Your task to perform on an android device: toggle notifications settings in the gmail app Image 0: 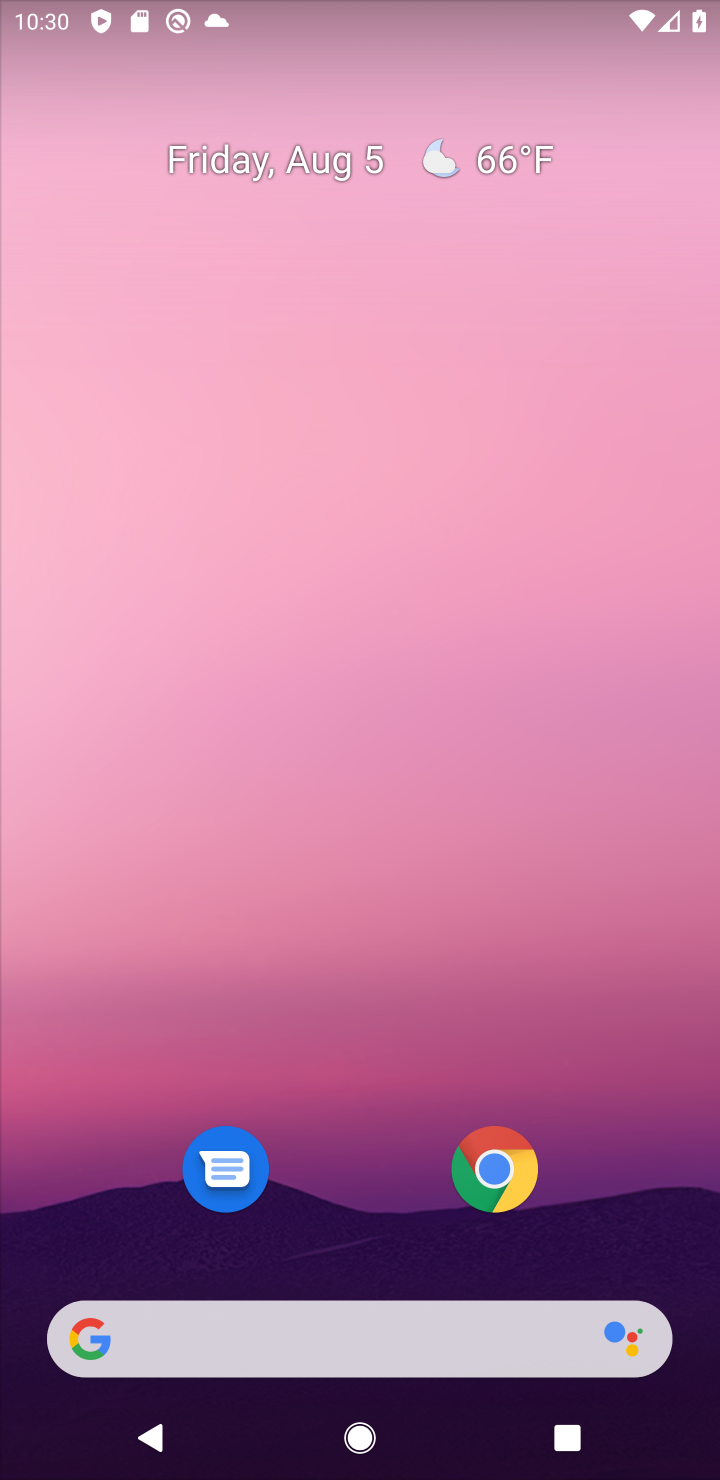
Step 0: drag from (660, 1228) to (558, 350)
Your task to perform on an android device: toggle notifications settings in the gmail app Image 1: 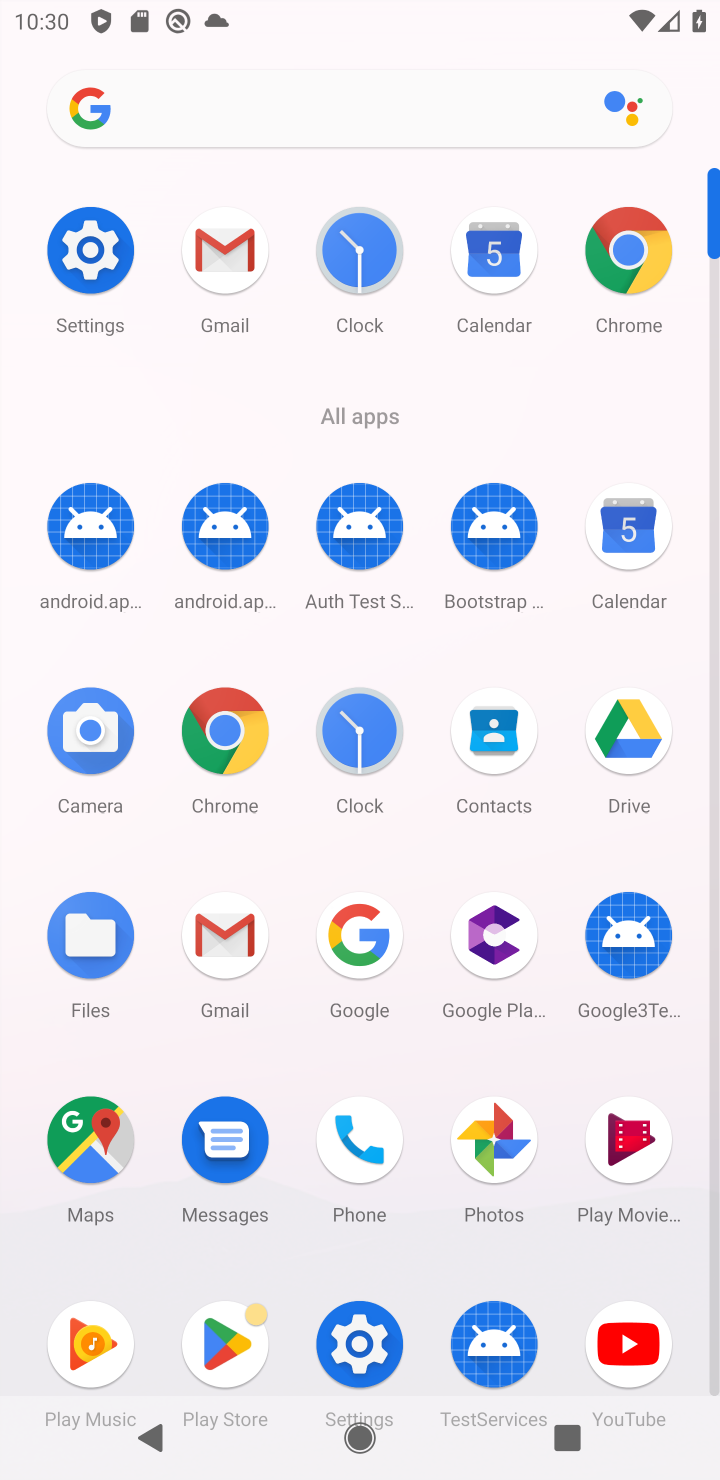
Step 1: click (221, 929)
Your task to perform on an android device: toggle notifications settings in the gmail app Image 2: 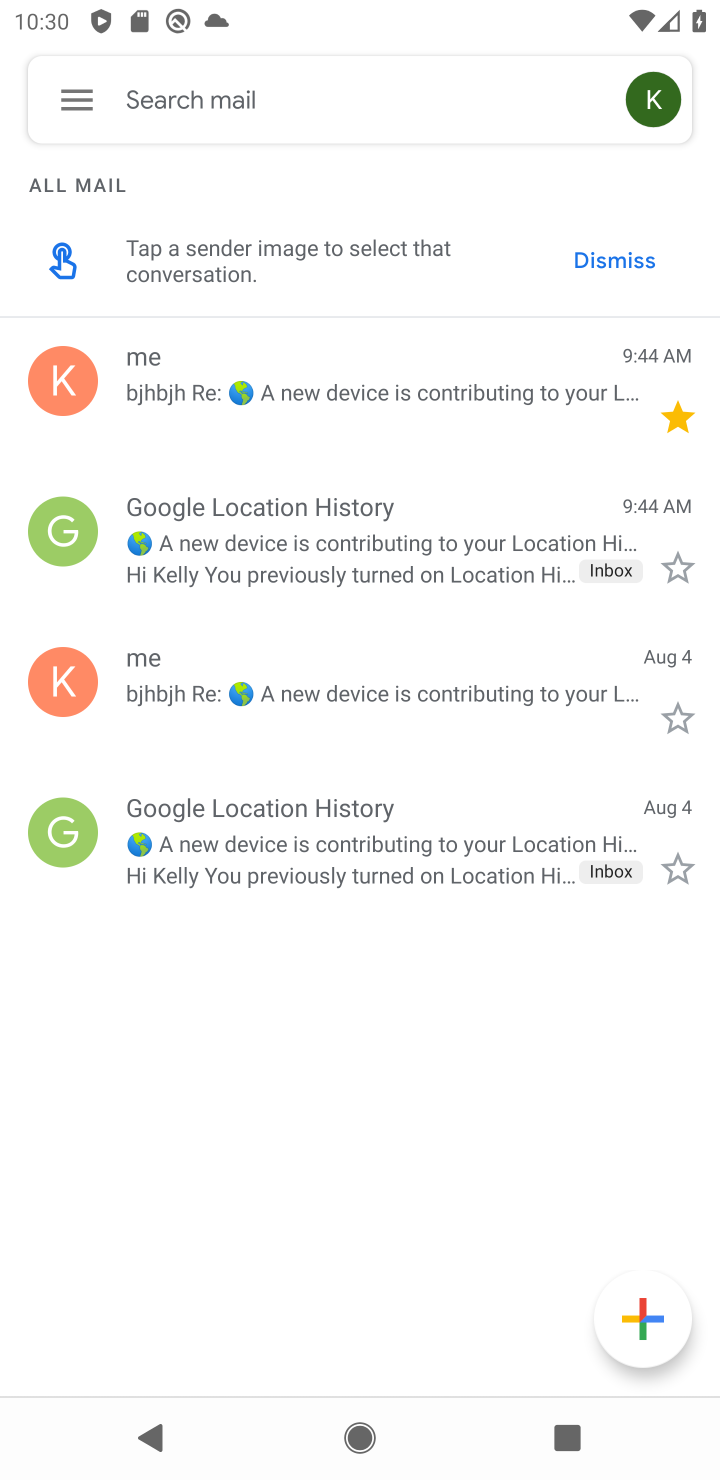
Step 2: click (73, 92)
Your task to perform on an android device: toggle notifications settings in the gmail app Image 3: 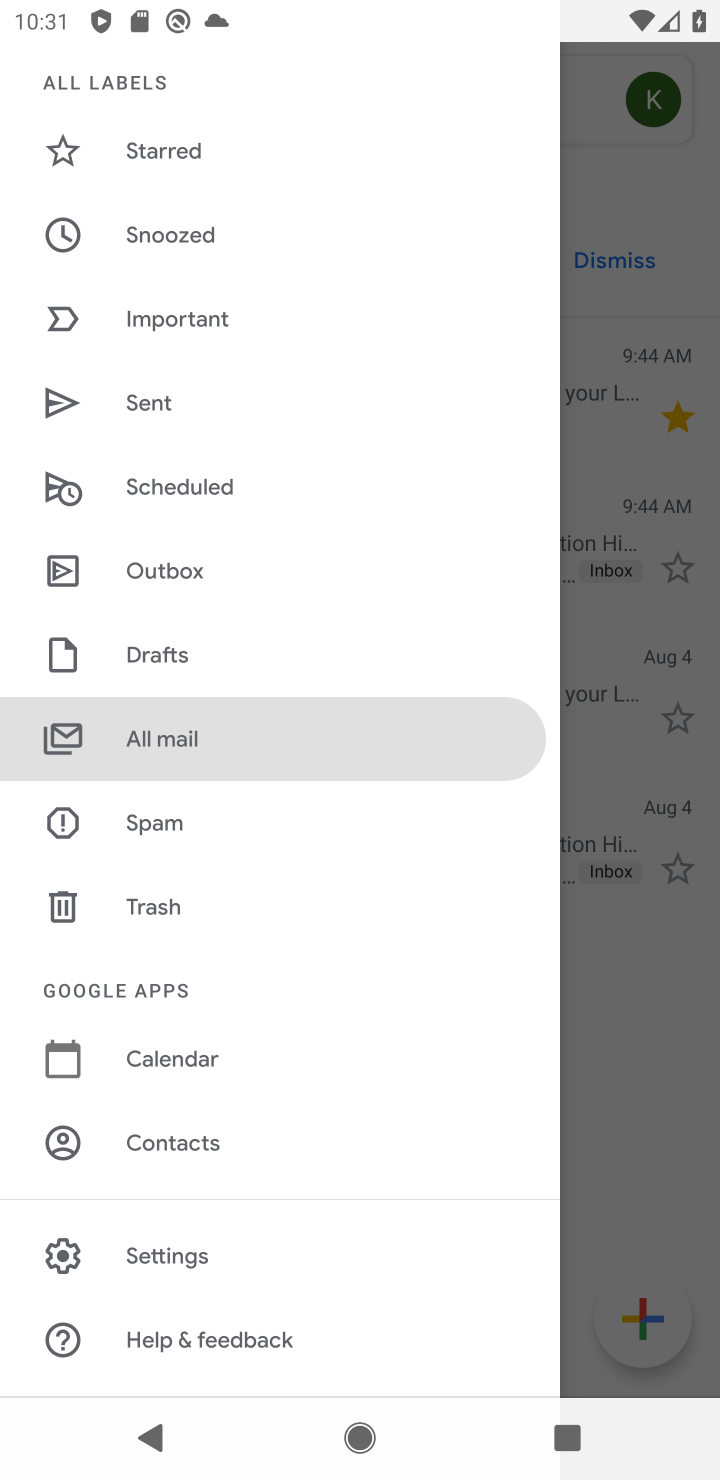
Step 3: click (164, 1248)
Your task to perform on an android device: toggle notifications settings in the gmail app Image 4: 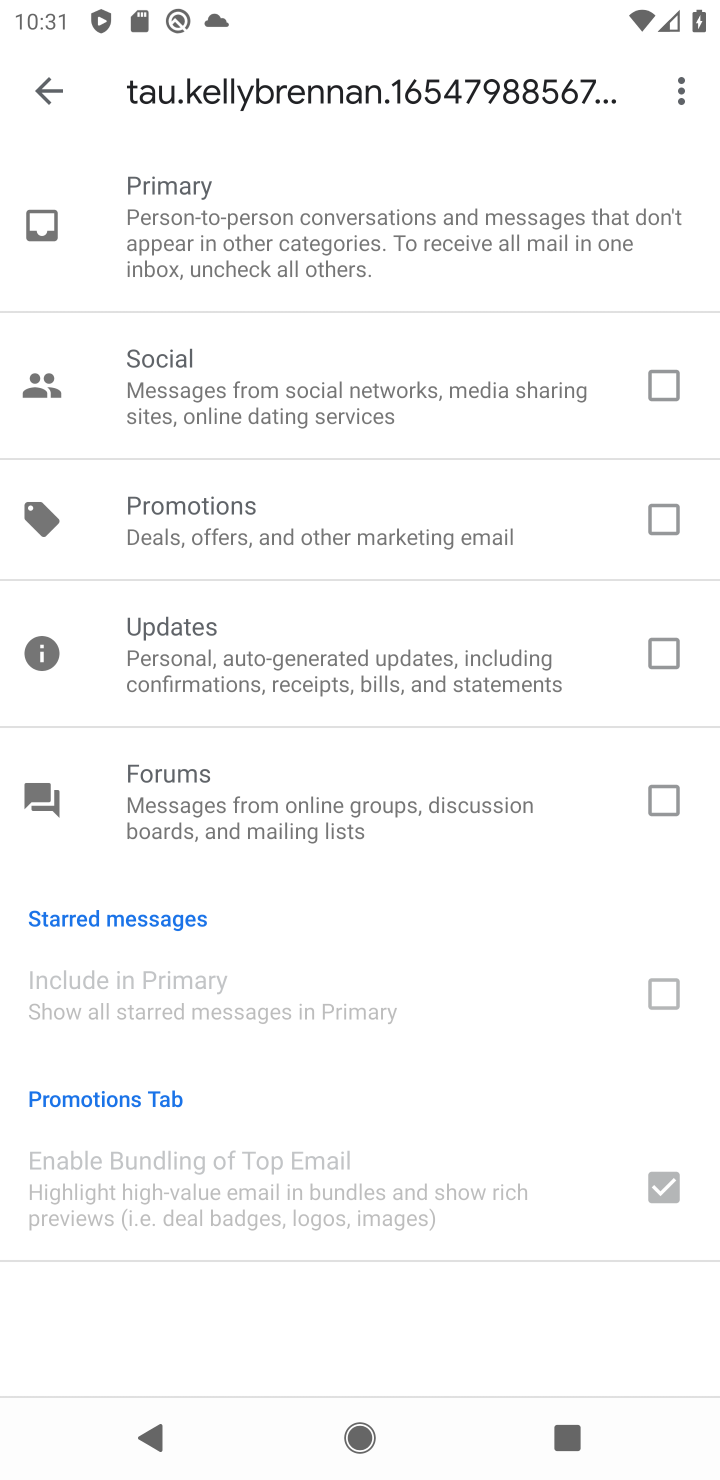
Step 4: press back button
Your task to perform on an android device: toggle notifications settings in the gmail app Image 5: 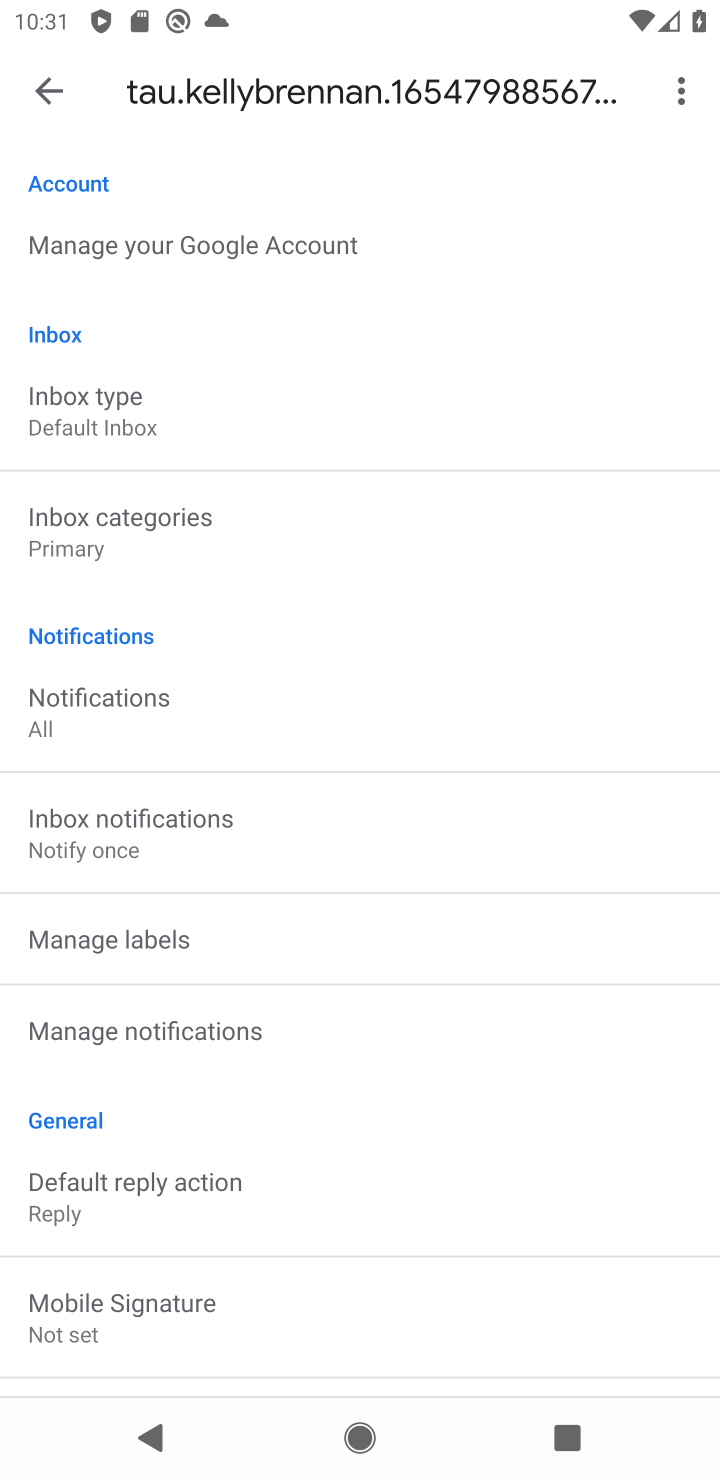
Step 5: click (201, 1043)
Your task to perform on an android device: toggle notifications settings in the gmail app Image 6: 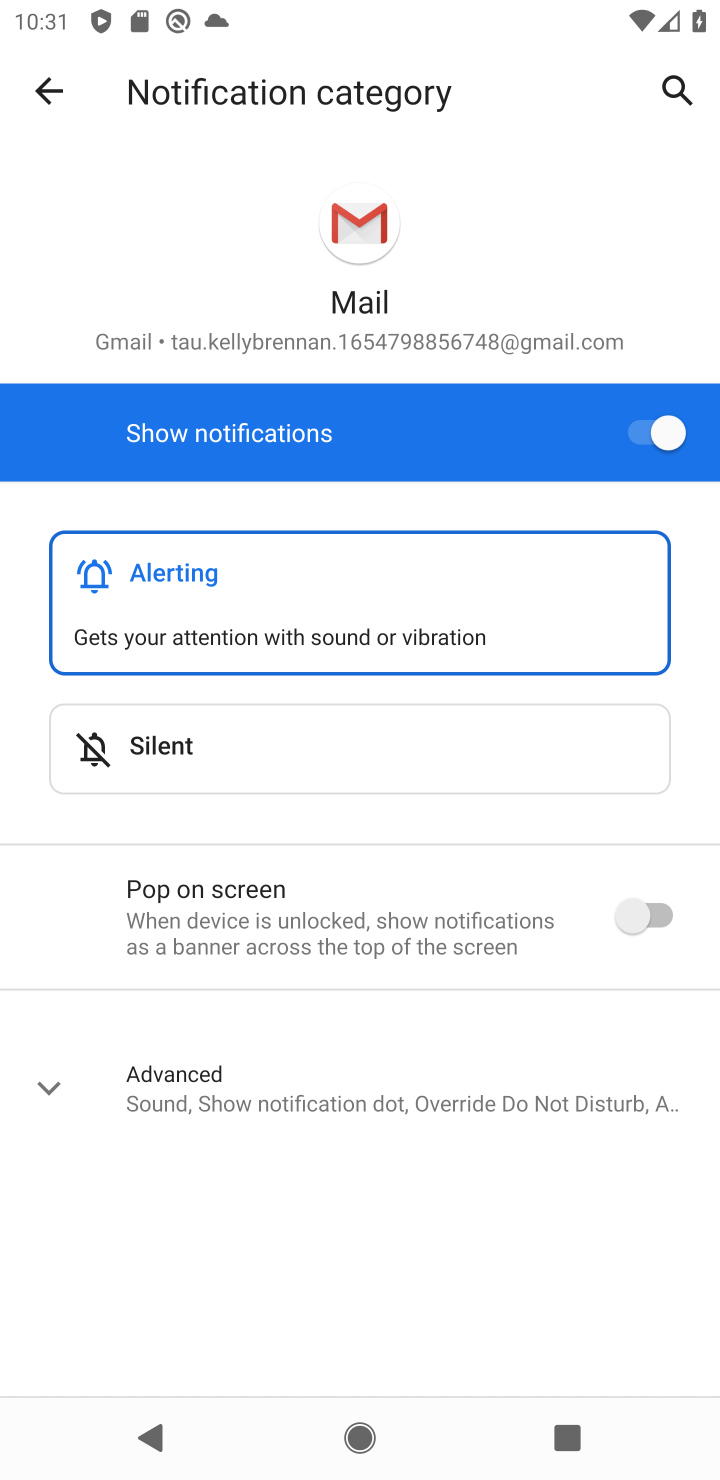
Step 6: click (637, 436)
Your task to perform on an android device: toggle notifications settings in the gmail app Image 7: 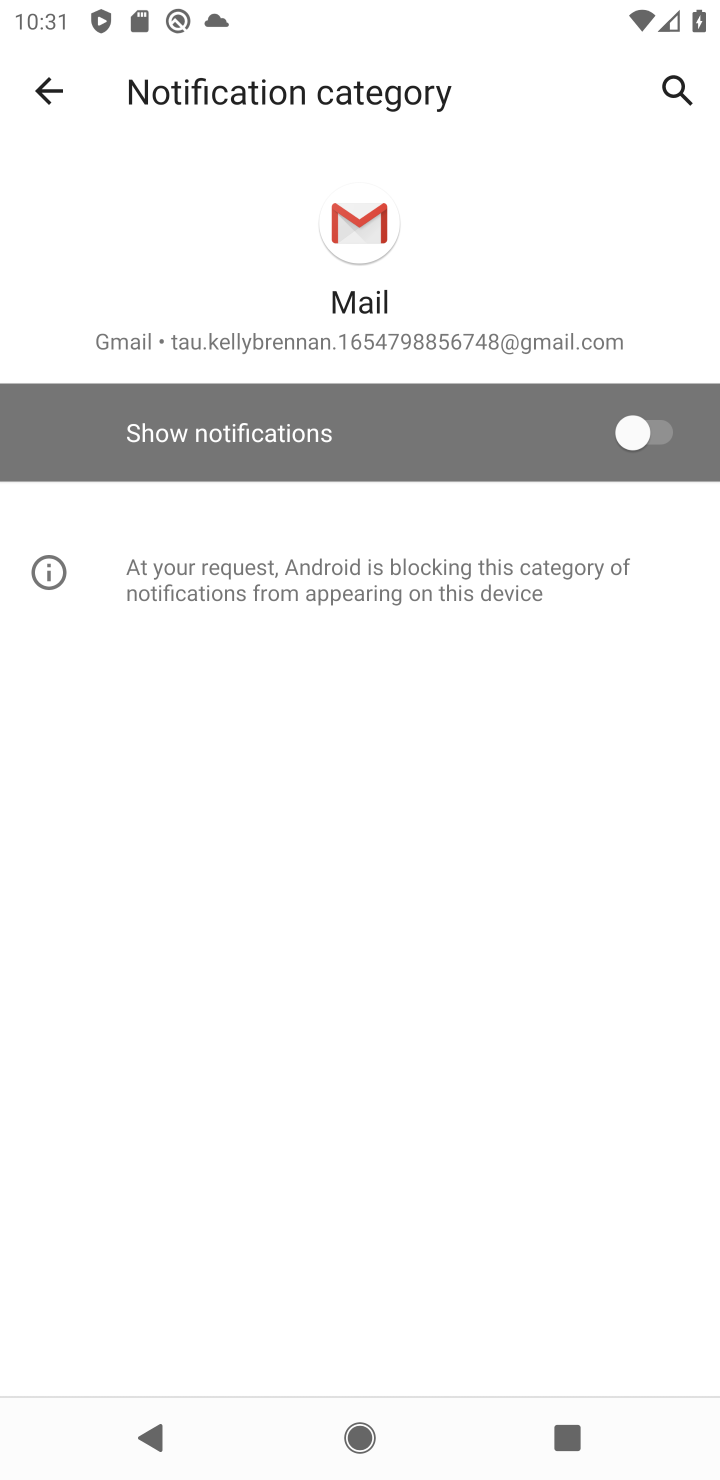
Step 7: task complete